Your task to perform on an android device: View the shopping cart on costco. Add dell xps to the cart on costco Image 0: 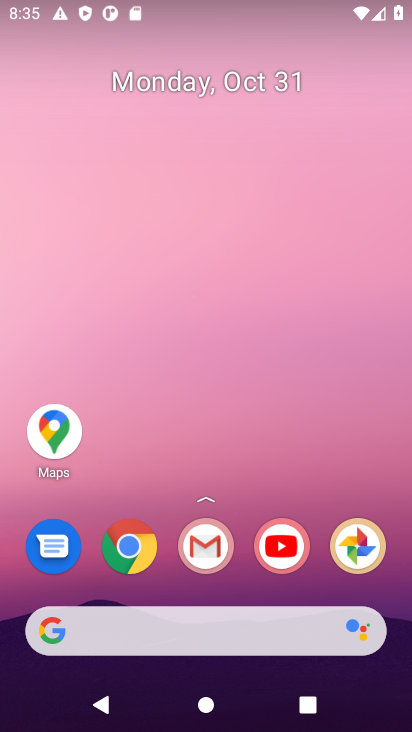
Step 0: click (127, 559)
Your task to perform on an android device: View the shopping cart on costco. Add dell xps to the cart on costco Image 1: 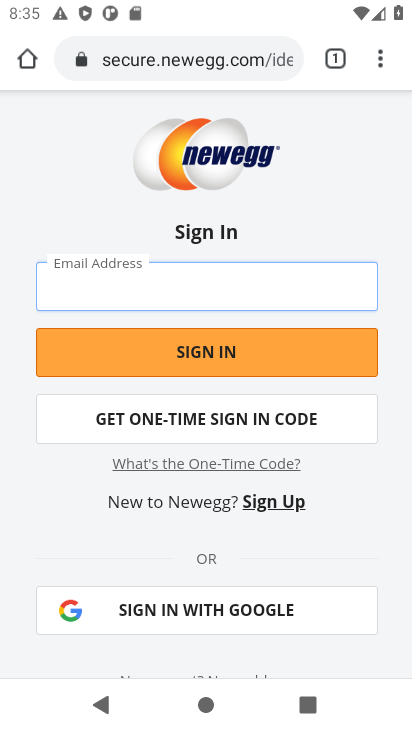
Step 1: click (189, 57)
Your task to perform on an android device: View the shopping cart on costco. Add dell xps to the cart on costco Image 2: 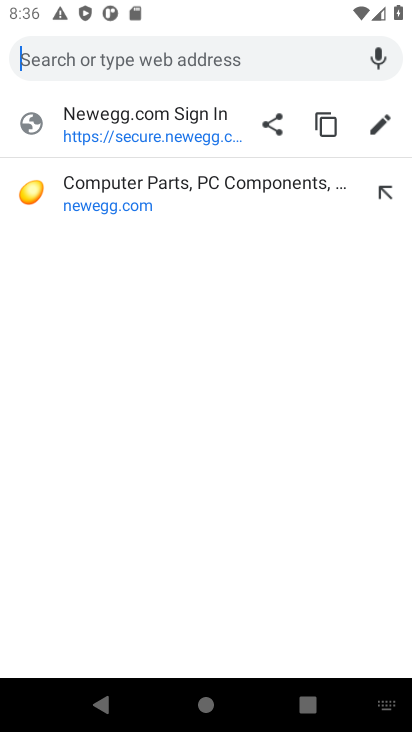
Step 2: type "costco"
Your task to perform on an android device: View the shopping cart on costco. Add dell xps to the cart on costco Image 3: 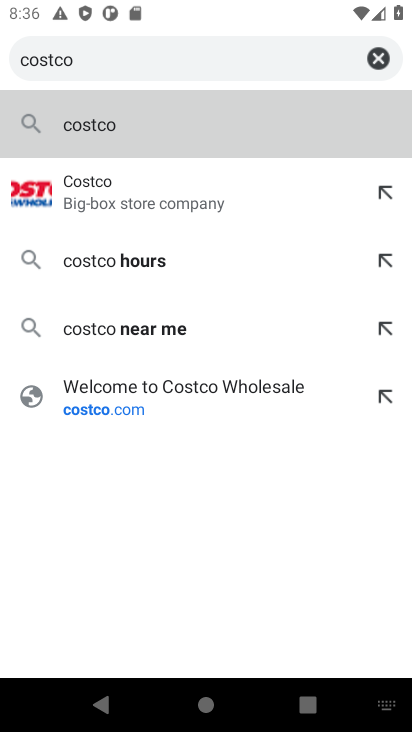
Step 3: press enter
Your task to perform on an android device: View the shopping cart on costco. Add dell xps to the cart on costco Image 4: 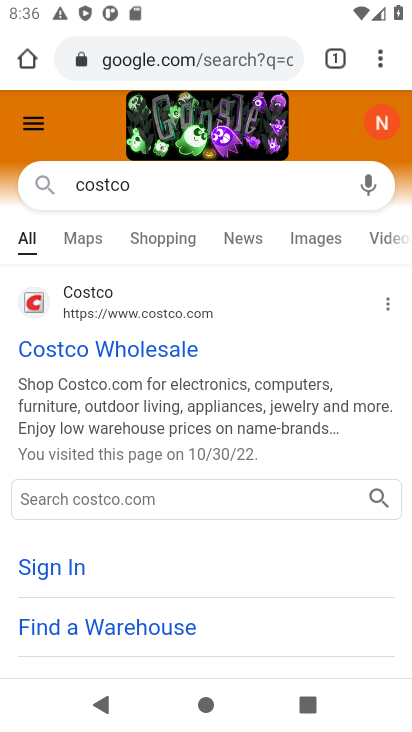
Step 4: click (104, 353)
Your task to perform on an android device: View the shopping cart on costco. Add dell xps to the cart on costco Image 5: 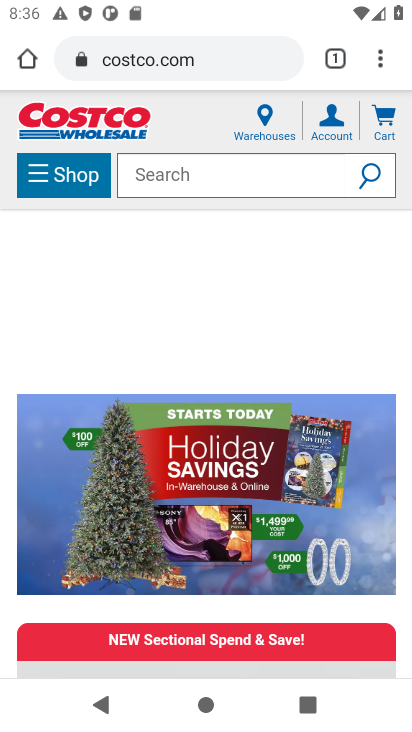
Step 5: click (193, 168)
Your task to perform on an android device: View the shopping cart on costco. Add dell xps to the cart on costco Image 6: 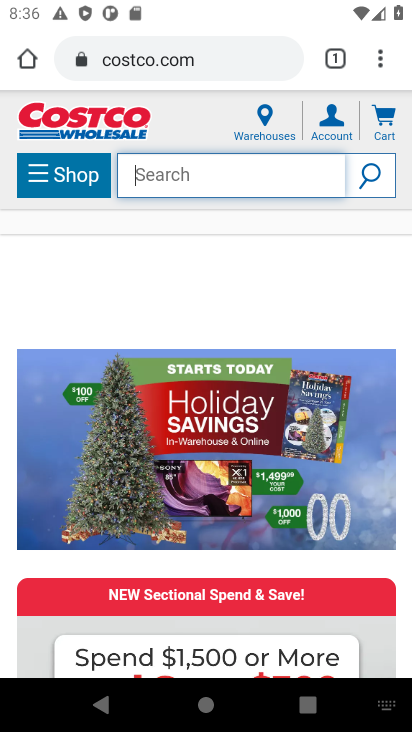
Step 6: click (172, 246)
Your task to perform on an android device: View the shopping cart on costco. Add dell xps to the cart on costco Image 7: 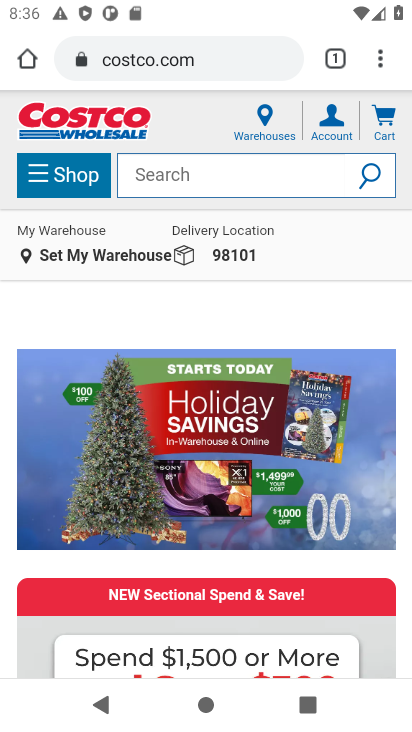
Step 7: click (384, 132)
Your task to perform on an android device: View the shopping cart on costco. Add dell xps to the cart on costco Image 8: 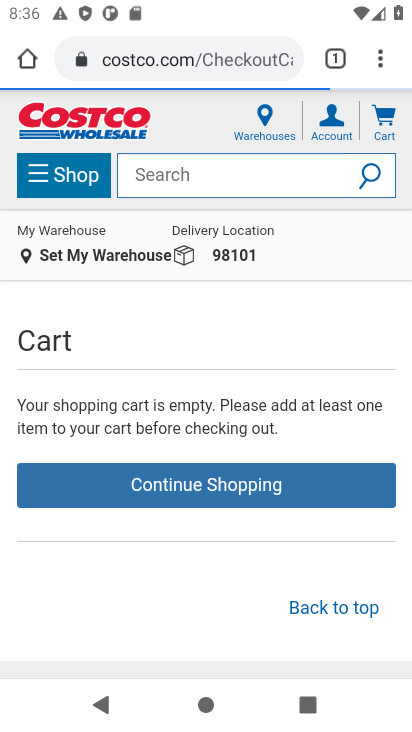
Step 8: click (230, 175)
Your task to perform on an android device: View the shopping cart on costco. Add dell xps to the cart on costco Image 9: 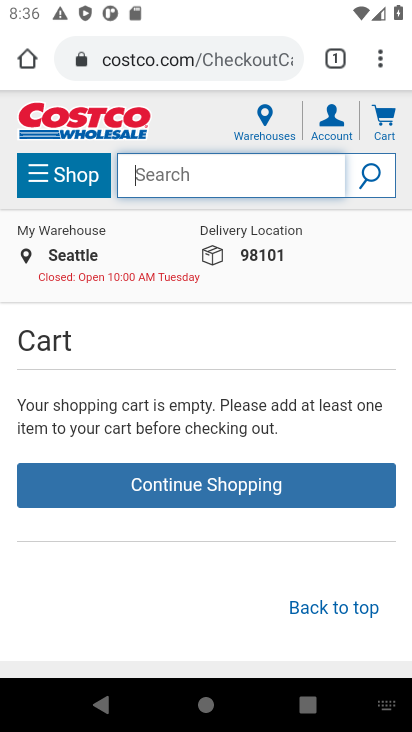
Step 9: type "dell xps"
Your task to perform on an android device: View the shopping cart on costco. Add dell xps to the cart on costco Image 10: 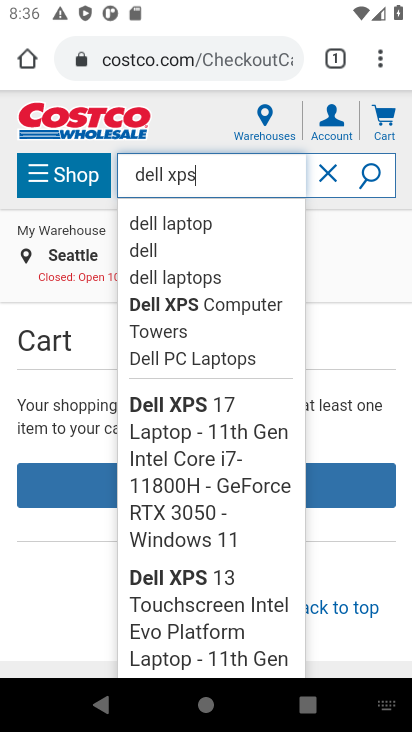
Step 10: press enter
Your task to perform on an android device: View the shopping cart on costco. Add dell xps to the cart on costco Image 11: 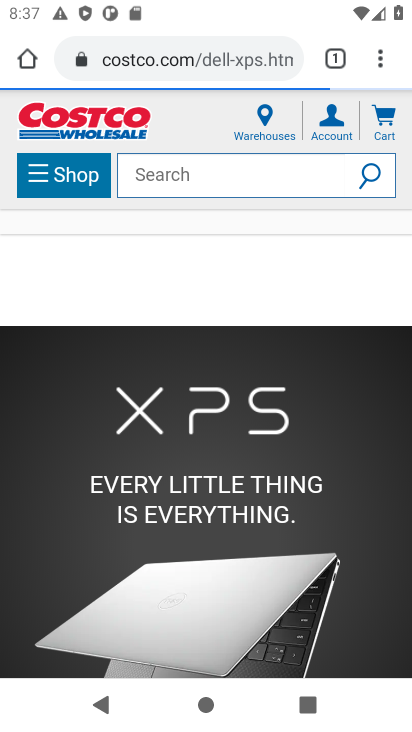
Step 11: drag from (176, 469) to (211, 208)
Your task to perform on an android device: View the shopping cart on costco. Add dell xps to the cart on costco Image 12: 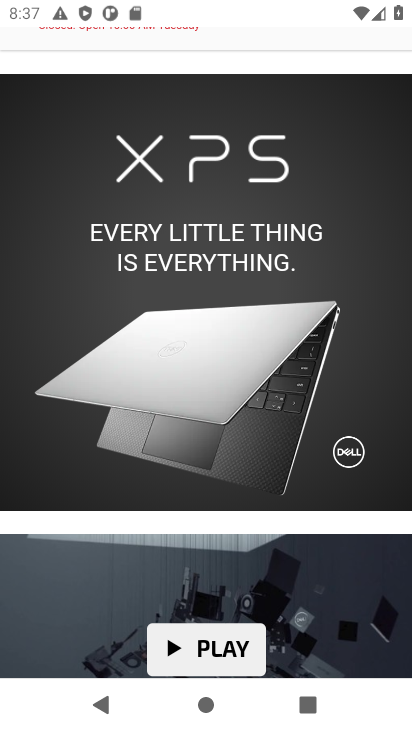
Step 12: drag from (210, 532) to (208, 405)
Your task to perform on an android device: View the shopping cart on costco. Add dell xps to the cart on costco Image 13: 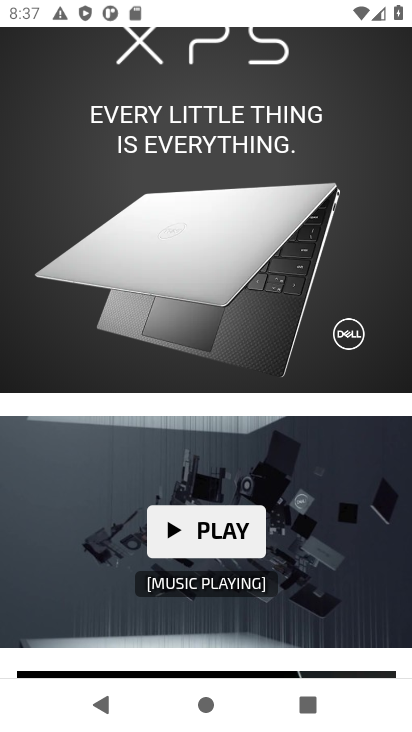
Step 13: drag from (220, 642) to (233, 148)
Your task to perform on an android device: View the shopping cart on costco. Add dell xps to the cart on costco Image 14: 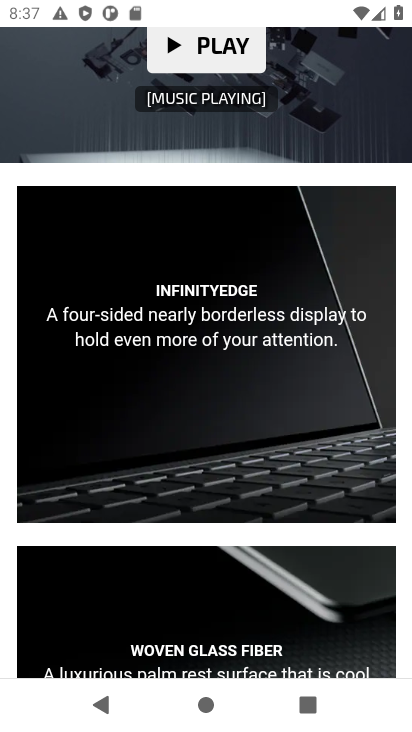
Step 14: drag from (231, 554) to (253, 144)
Your task to perform on an android device: View the shopping cart on costco. Add dell xps to the cart on costco Image 15: 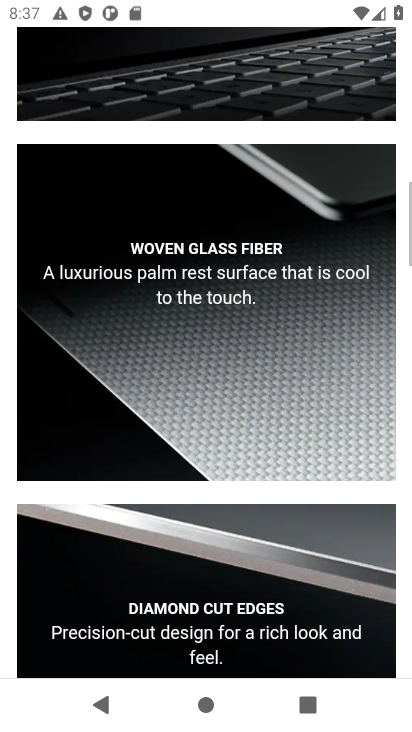
Step 15: drag from (253, 580) to (268, 177)
Your task to perform on an android device: View the shopping cart on costco. Add dell xps to the cart on costco Image 16: 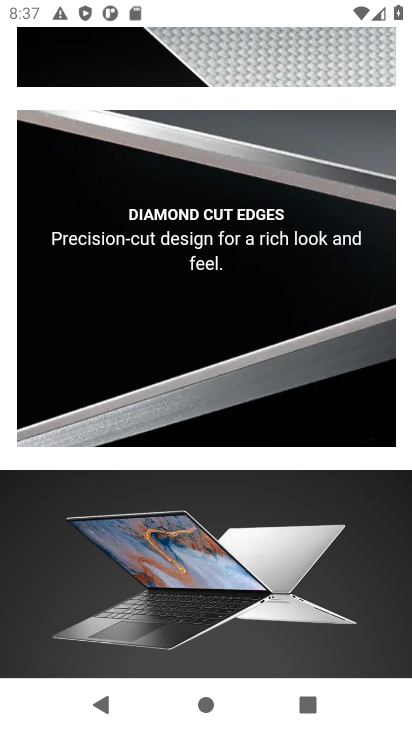
Step 16: drag from (227, 506) to (282, 169)
Your task to perform on an android device: View the shopping cart on costco. Add dell xps to the cart on costco Image 17: 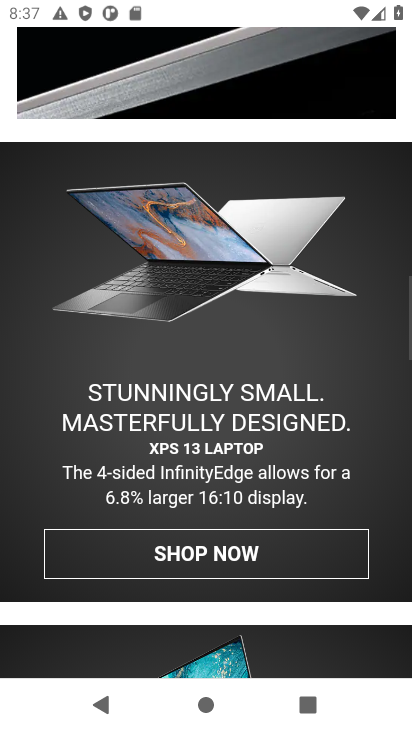
Step 17: drag from (259, 494) to (304, 286)
Your task to perform on an android device: View the shopping cart on costco. Add dell xps to the cart on costco Image 18: 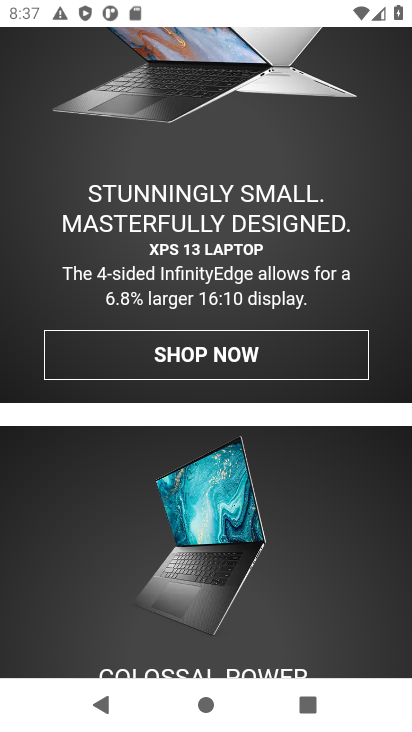
Step 18: click (247, 360)
Your task to perform on an android device: View the shopping cart on costco. Add dell xps to the cart on costco Image 19: 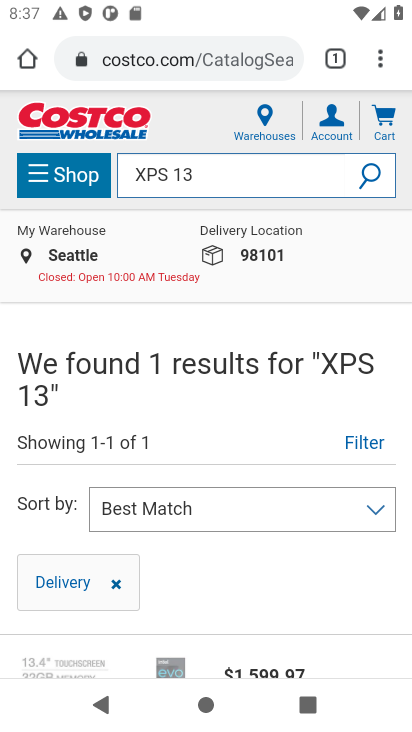
Step 19: task complete